Your task to perform on an android device: turn on translation in the chrome app Image 0: 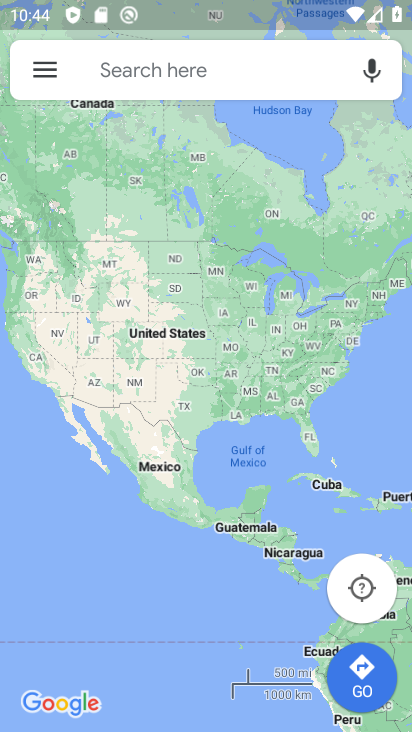
Step 0: press home button
Your task to perform on an android device: turn on translation in the chrome app Image 1: 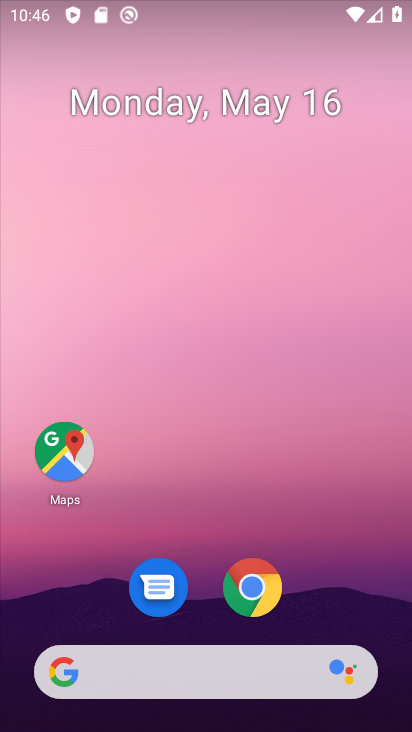
Step 1: click (263, 594)
Your task to perform on an android device: turn on translation in the chrome app Image 2: 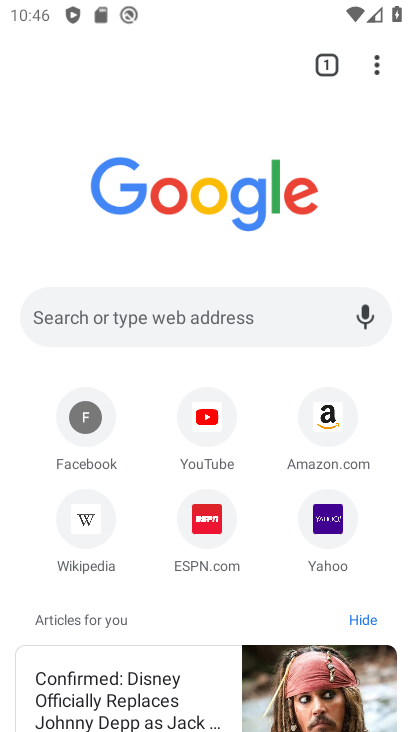
Step 2: click (371, 61)
Your task to perform on an android device: turn on translation in the chrome app Image 3: 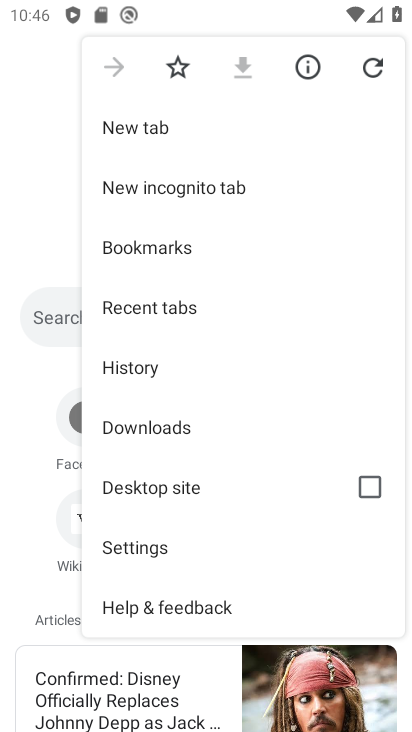
Step 3: click (181, 537)
Your task to perform on an android device: turn on translation in the chrome app Image 4: 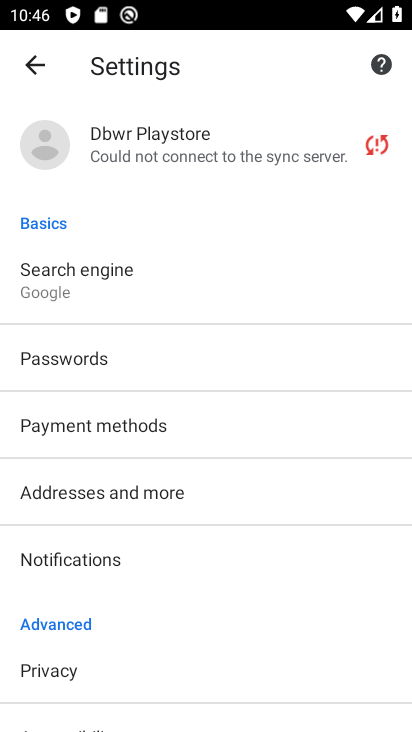
Step 4: drag from (137, 674) to (229, 240)
Your task to perform on an android device: turn on translation in the chrome app Image 5: 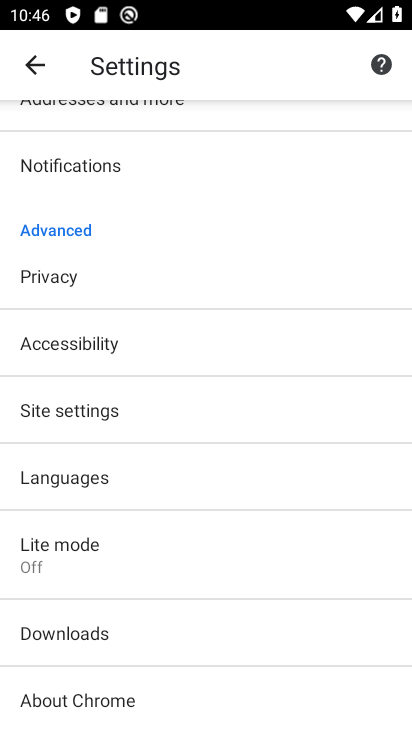
Step 5: click (127, 466)
Your task to perform on an android device: turn on translation in the chrome app Image 6: 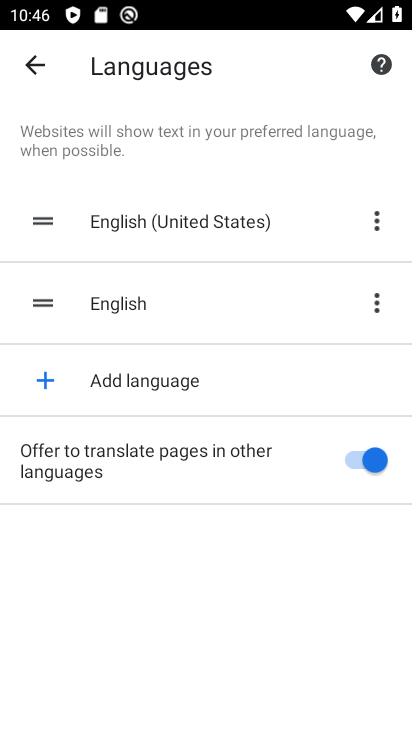
Step 6: task complete